Your task to perform on an android device: visit the assistant section in the google photos Image 0: 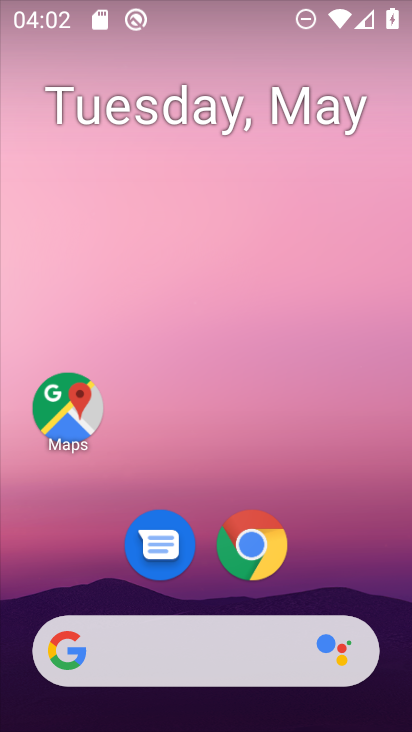
Step 0: drag from (394, 642) to (341, 87)
Your task to perform on an android device: visit the assistant section in the google photos Image 1: 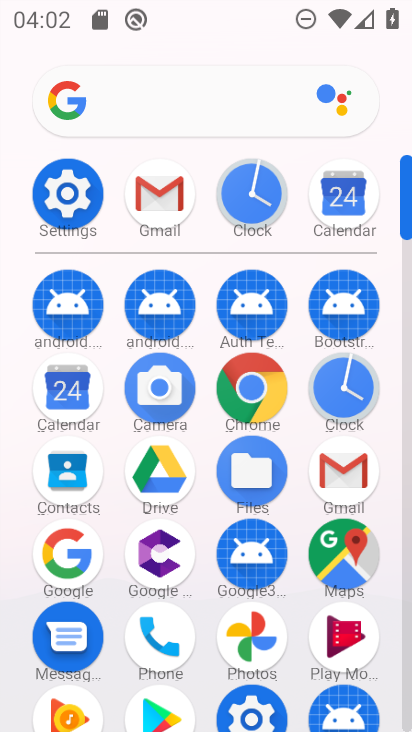
Step 1: click (406, 713)
Your task to perform on an android device: visit the assistant section in the google photos Image 2: 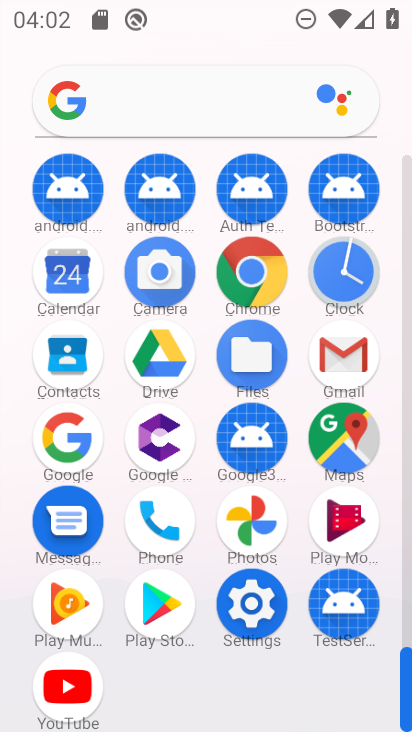
Step 2: click (250, 520)
Your task to perform on an android device: visit the assistant section in the google photos Image 3: 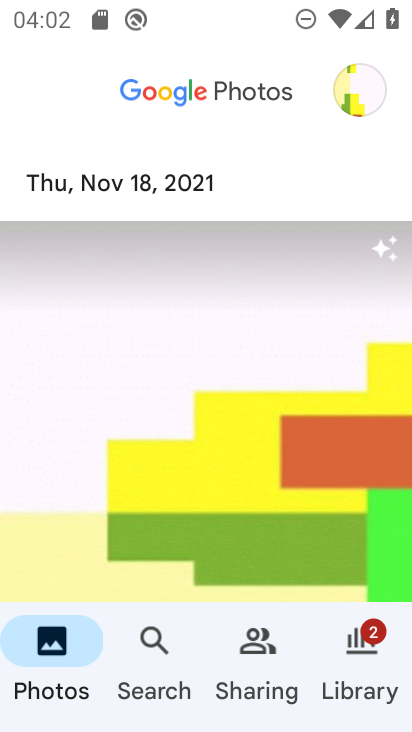
Step 3: task complete